Your task to perform on an android device: Open the stopwatch Image 0: 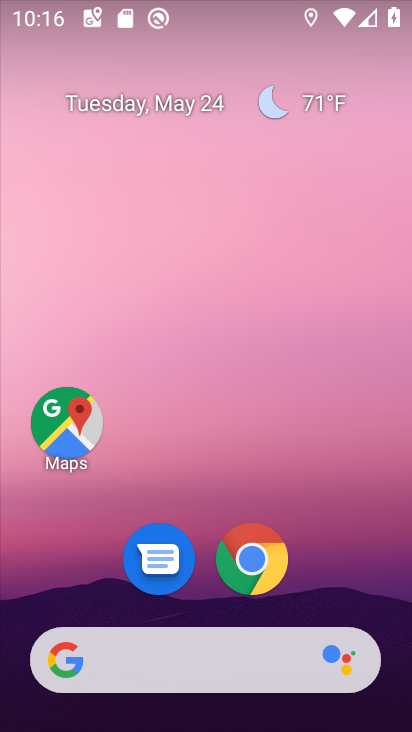
Step 0: drag from (391, 664) to (291, 45)
Your task to perform on an android device: Open the stopwatch Image 1: 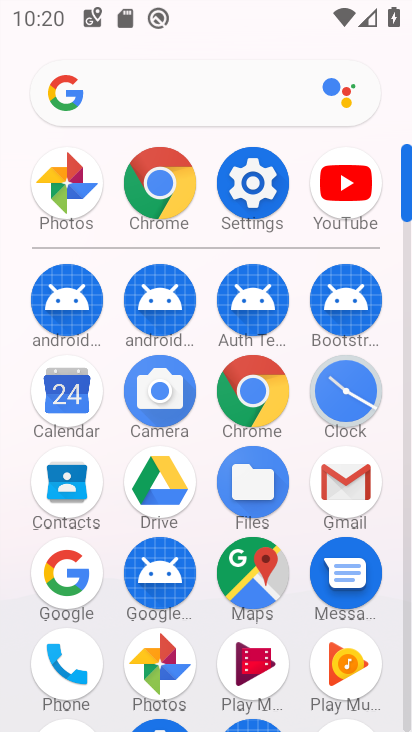
Step 1: drag from (48, 0) to (243, 3)
Your task to perform on an android device: Open the stopwatch Image 2: 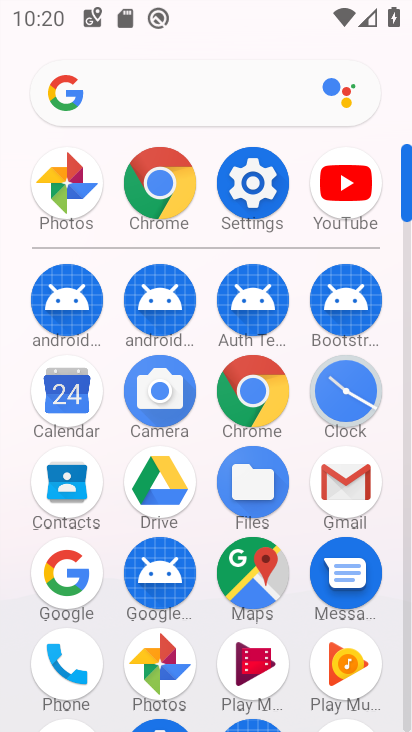
Step 2: click (334, 402)
Your task to perform on an android device: Open the stopwatch Image 3: 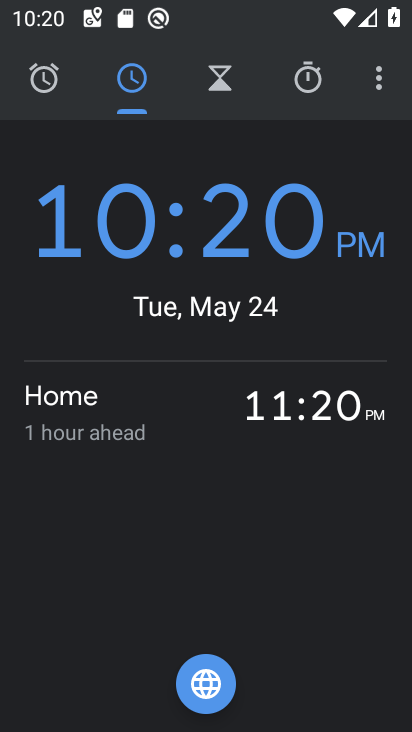
Step 3: click (313, 78)
Your task to perform on an android device: Open the stopwatch Image 4: 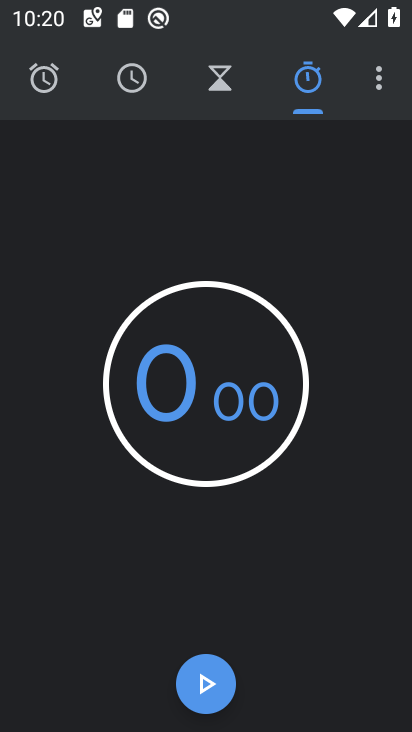
Step 4: task complete